Your task to perform on an android device: Turn on the flashlight Image 0: 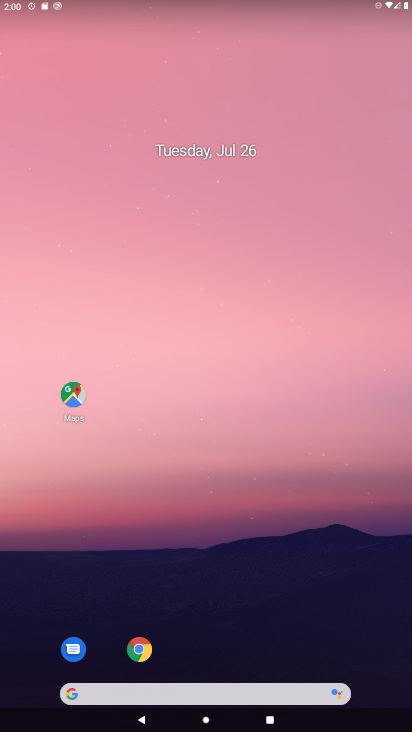
Step 0: drag from (353, 676) to (150, 12)
Your task to perform on an android device: Turn on the flashlight Image 1: 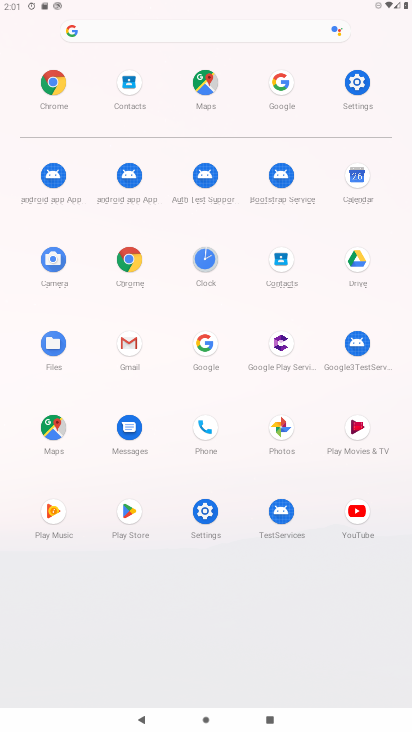
Step 1: click (200, 507)
Your task to perform on an android device: Turn on the flashlight Image 2: 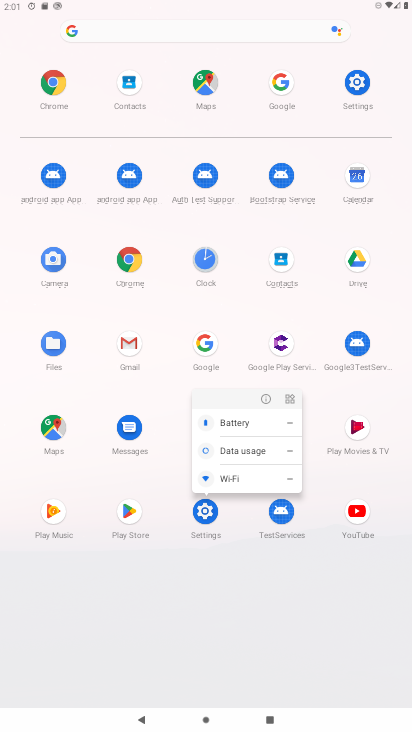
Step 2: click (200, 507)
Your task to perform on an android device: Turn on the flashlight Image 3: 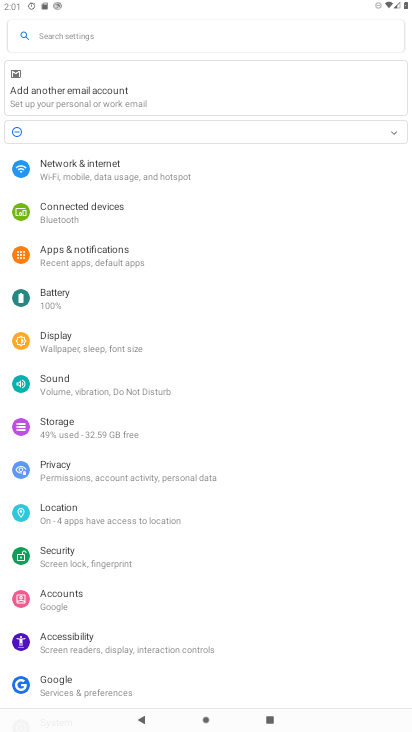
Step 3: task complete